Your task to perform on an android device: Open settings Image 0: 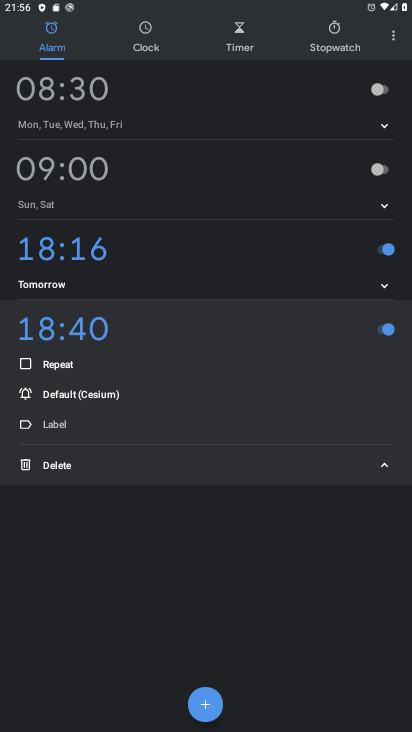
Step 0: press home button
Your task to perform on an android device: Open settings Image 1: 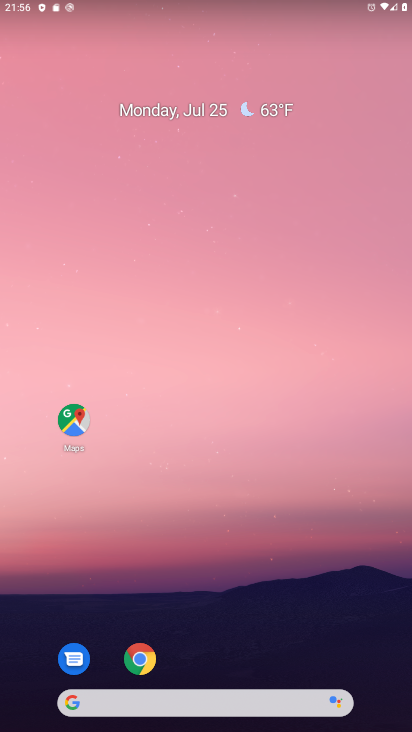
Step 1: drag from (213, 720) to (210, 355)
Your task to perform on an android device: Open settings Image 2: 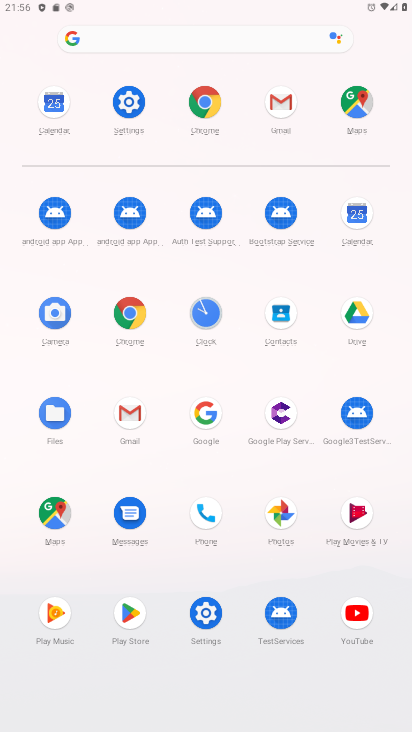
Step 2: click (127, 95)
Your task to perform on an android device: Open settings Image 3: 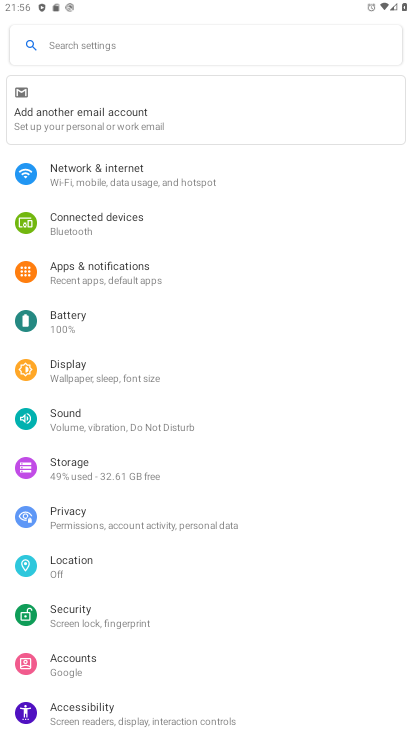
Step 3: task complete